Your task to perform on an android device: Go to location settings Image 0: 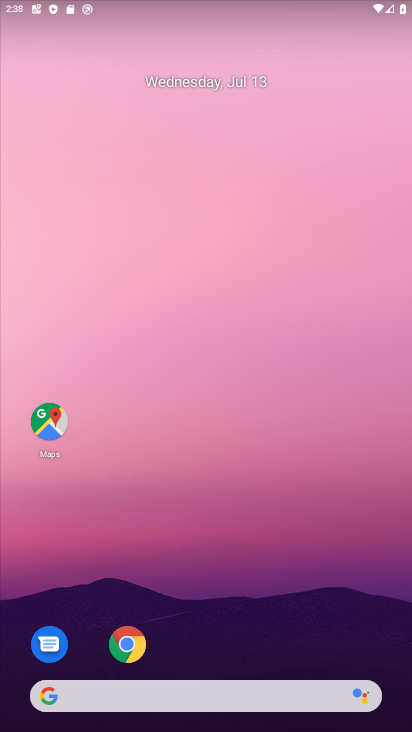
Step 0: drag from (320, 568) to (246, 54)
Your task to perform on an android device: Go to location settings Image 1: 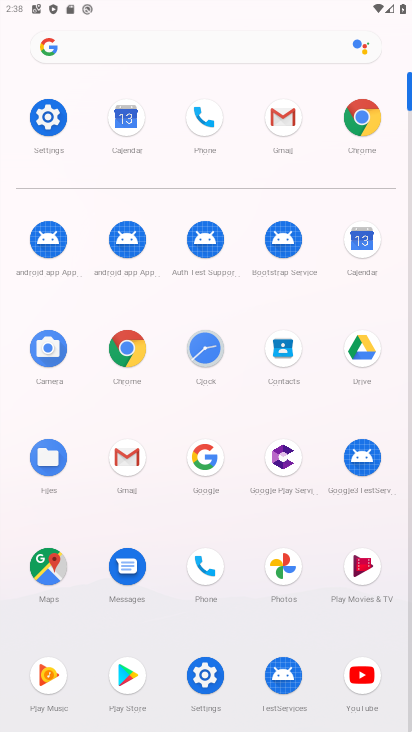
Step 1: click (47, 123)
Your task to perform on an android device: Go to location settings Image 2: 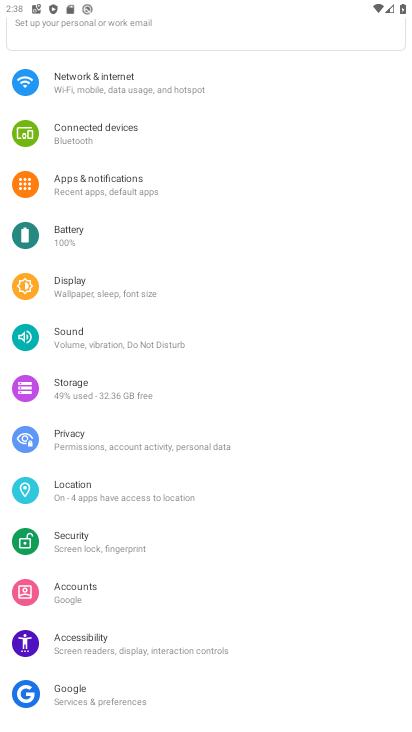
Step 2: task complete